Your task to perform on an android device: Go to notification settings Image 0: 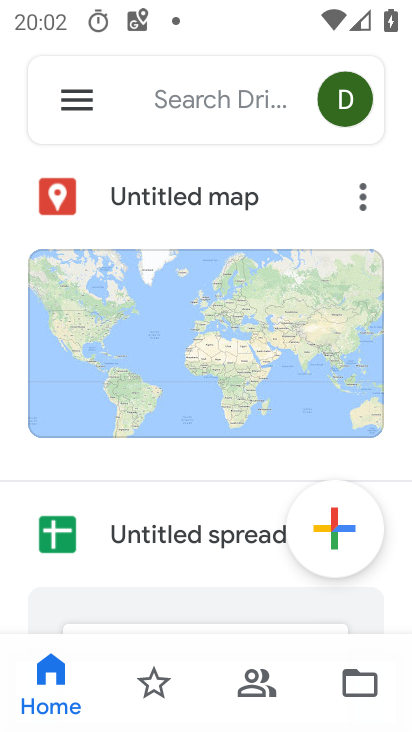
Step 0: press home button
Your task to perform on an android device: Go to notification settings Image 1: 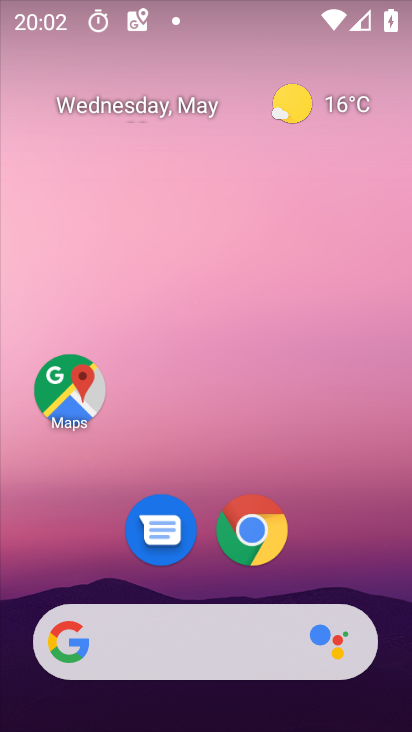
Step 1: drag from (196, 601) to (214, 244)
Your task to perform on an android device: Go to notification settings Image 2: 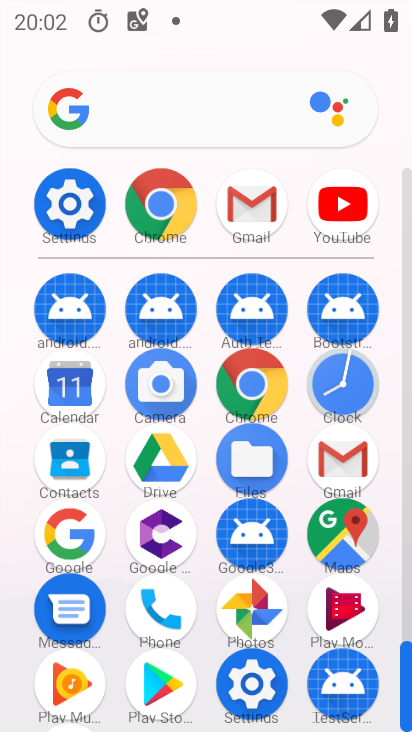
Step 2: click (64, 195)
Your task to perform on an android device: Go to notification settings Image 3: 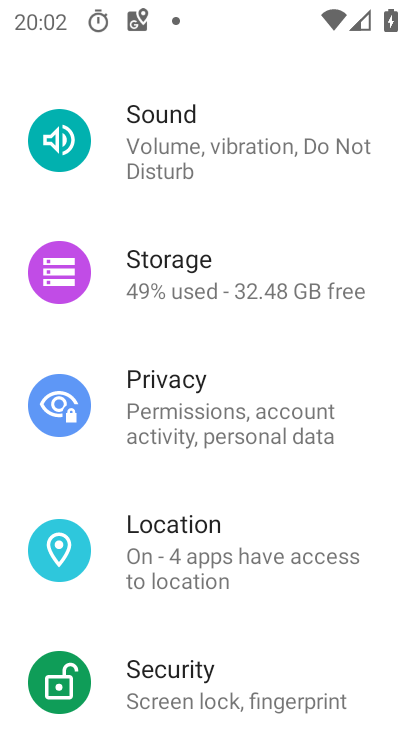
Step 3: drag from (229, 203) to (258, 603)
Your task to perform on an android device: Go to notification settings Image 4: 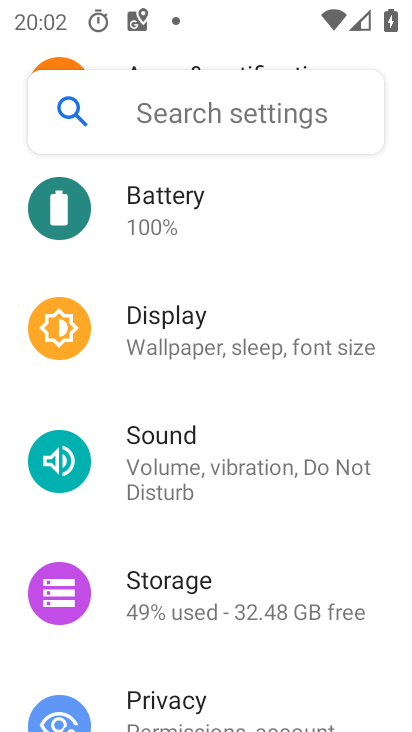
Step 4: drag from (246, 246) to (282, 639)
Your task to perform on an android device: Go to notification settings Image 5: 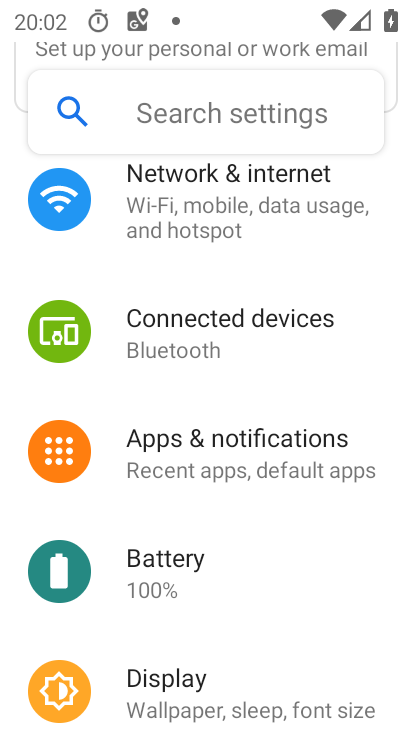
Step 5: click (237, 438)
Your task to perform on an android device: Go to notification settings Image 6: 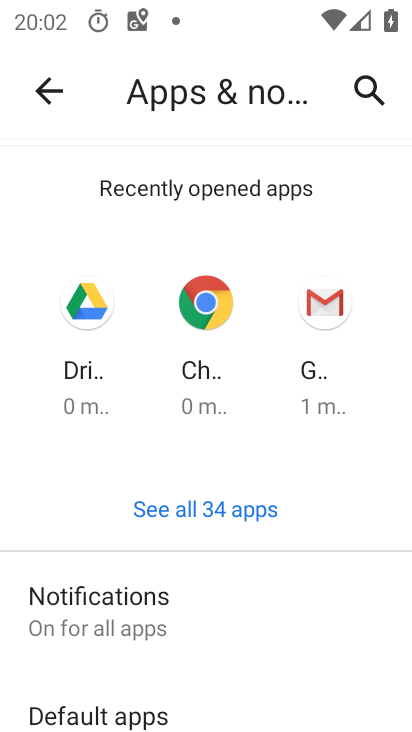
Step 6: task complete